Your task to perform on an android device: open wifi settings Image 0: 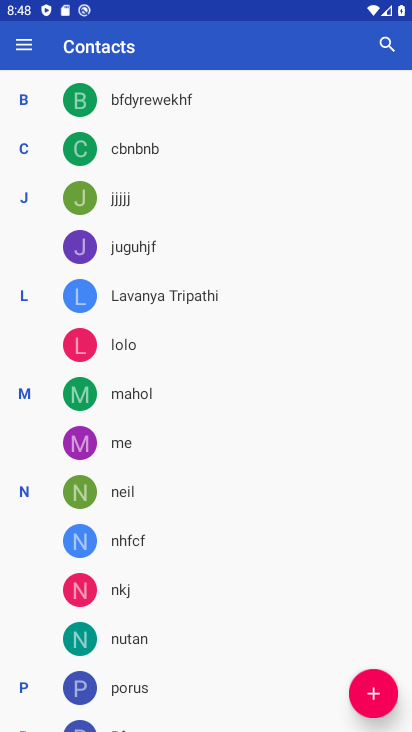
Step 0: press home button
Your task to perform on an android device: open wifi settings Image 1: 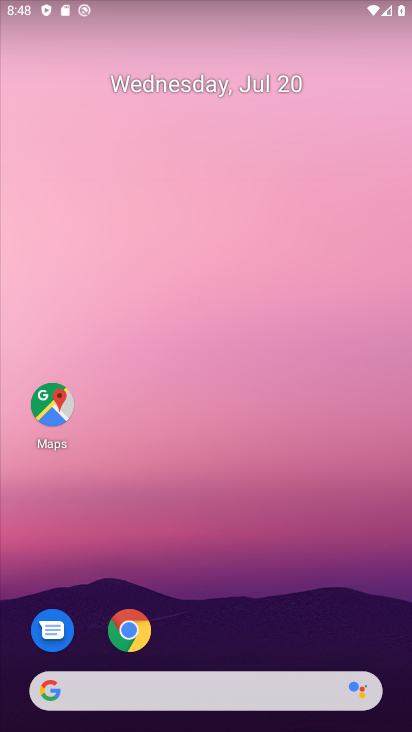
Step 1: drag from (191, 677) to (143, 63)
Your task to perform on an android device: open wifi settings Image 2: 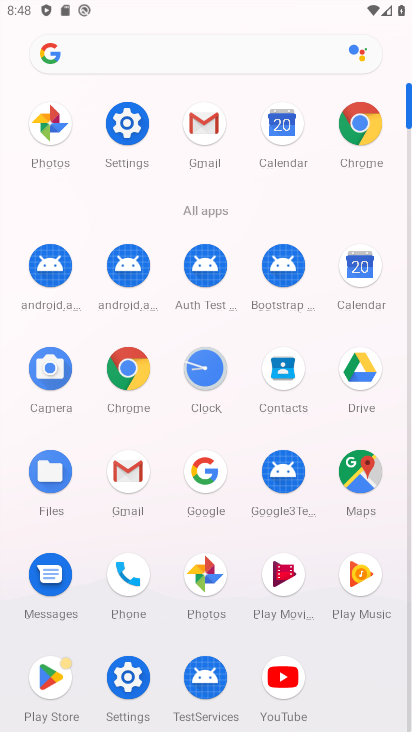
Step 2: click (120, 123)
Your task to perform on an android device: open wifi settings Image 3: 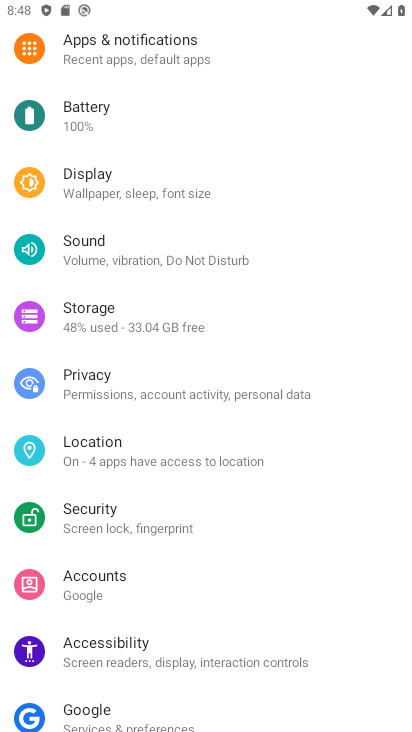
Step 3: drag from (149, 48) to (194, 498)
Your task to perform on an android device: open wifi settings Image 4: 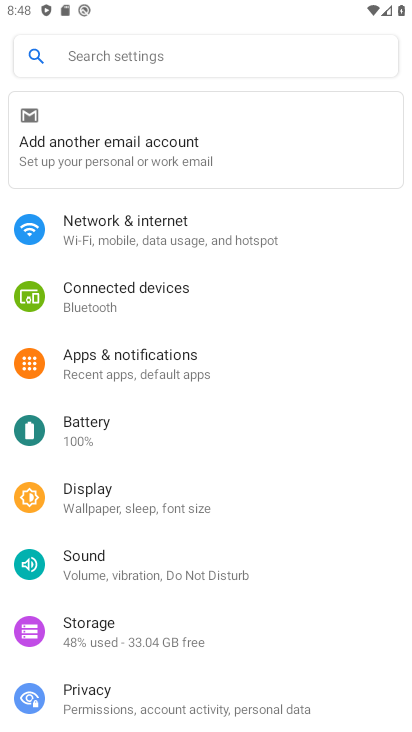
Step 4: click (140, 229)
Your task to perform on an android device: open wifi settings Image 5: 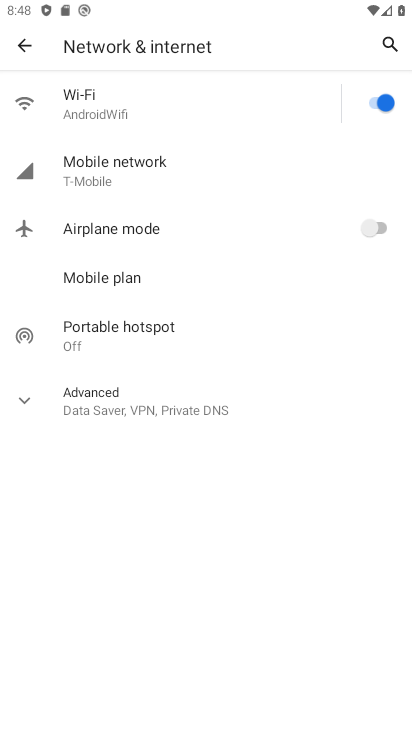
Step 5: click (113, 100)
Your task to perform on an android device: open wifi settings Image 6: 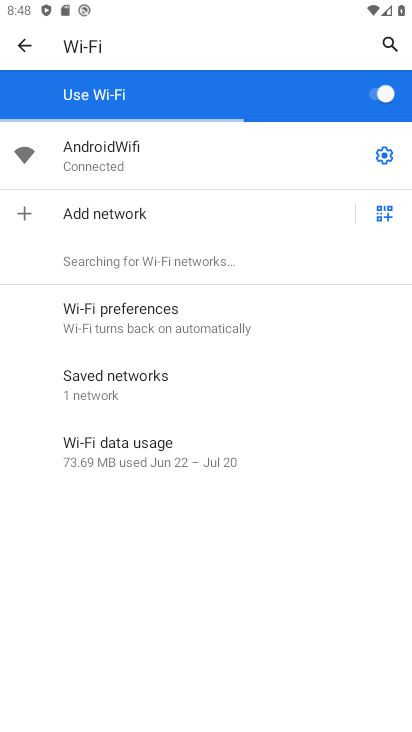
Step 6: task complete